Your task to perform on an android device: turn on sleep mode Image 0: 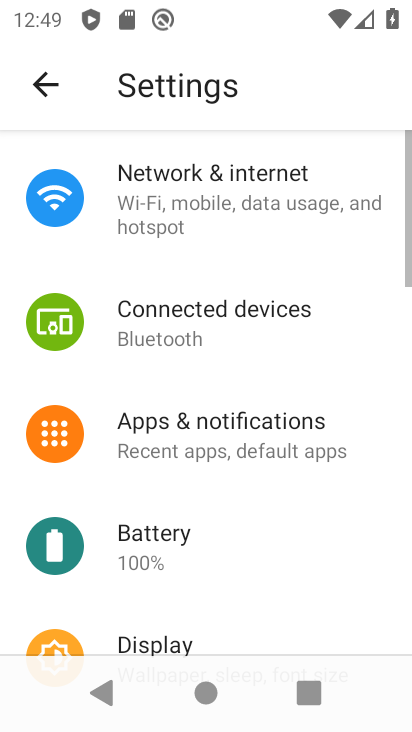
Step 0: press home button
Your task to perform on an android device: turn on sleep mode Image 1: 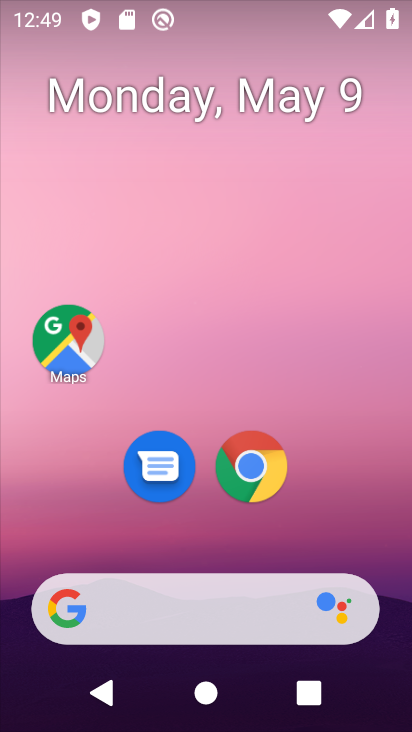
Step 1: drag from (254, 554) to (249, 64)
Your task to perform on an android device: turn on sleep mode Image 2: 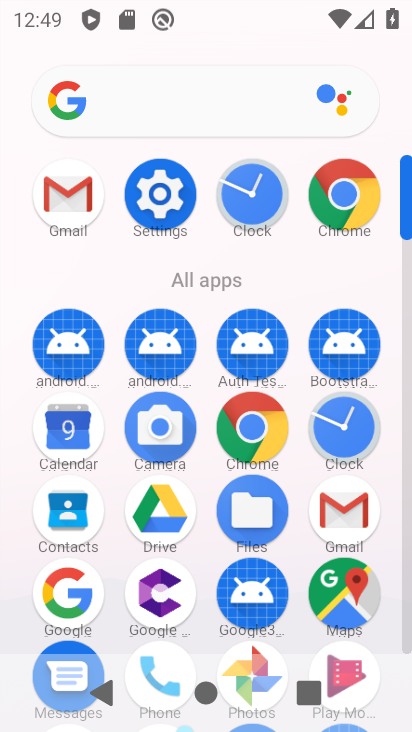
Step 2: click (181, 210)
Your task to perform on an android device: turn on sleep mode Image 3: 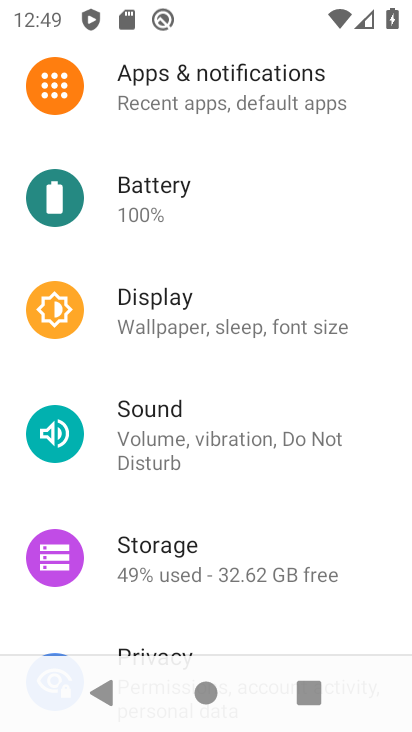
Step 3: click (174, 349)
Your task to perform on an android device: turn on sleep mode Image 4: 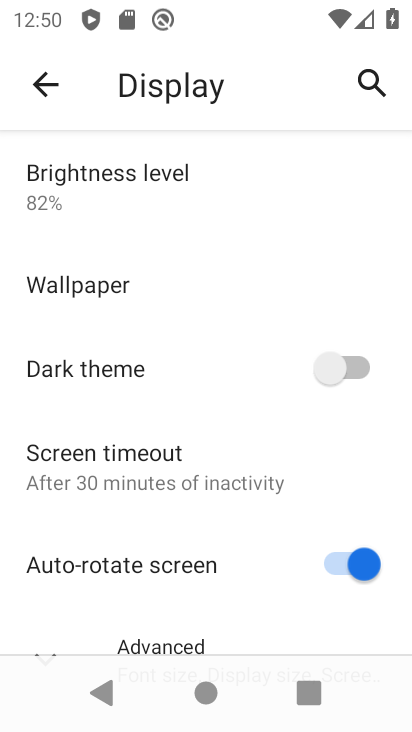
Step 4: drag from (173, 478) to (219, 259)
Your task to perform on an android device: turn on sleep mode Image 5: 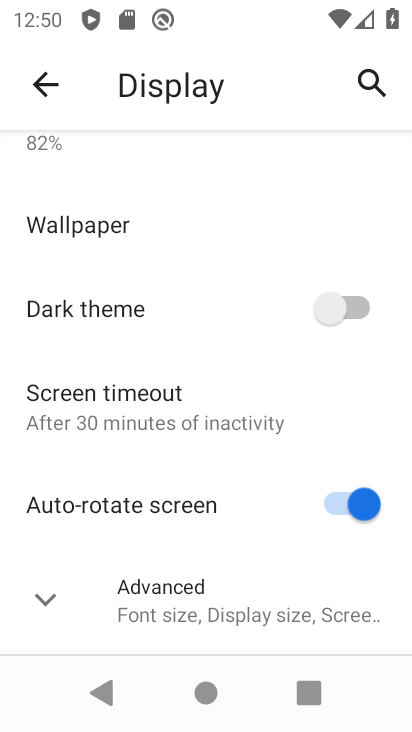
Step 5: click (194, 610)
Your task to perform on an android device: turn on sleep mode Image 6: 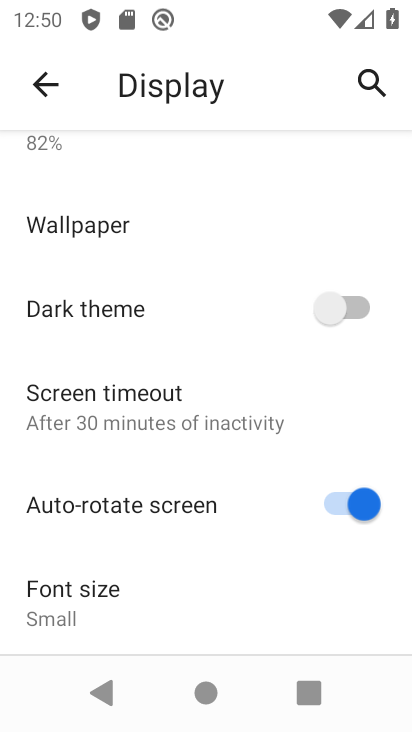
Step 6: task complete